Your task to perform on an android device: Turn off the flashlight Image 0: 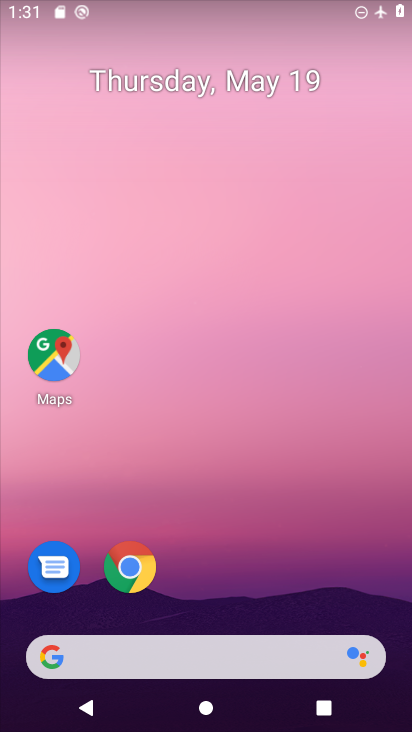
Step 0: drag from (225, 534) to (245, 38)
Your task to perform on an android device: Turn off the flashlight Image 1: 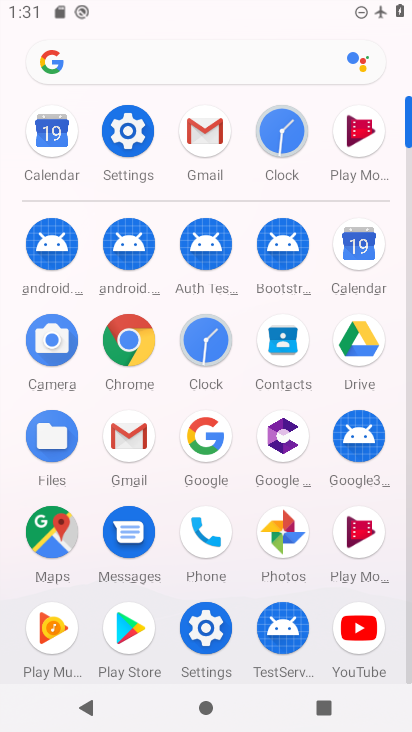
Step 1: click (128, 134)
Your task to perform on an android device: Turn off the flashlight Image 2: 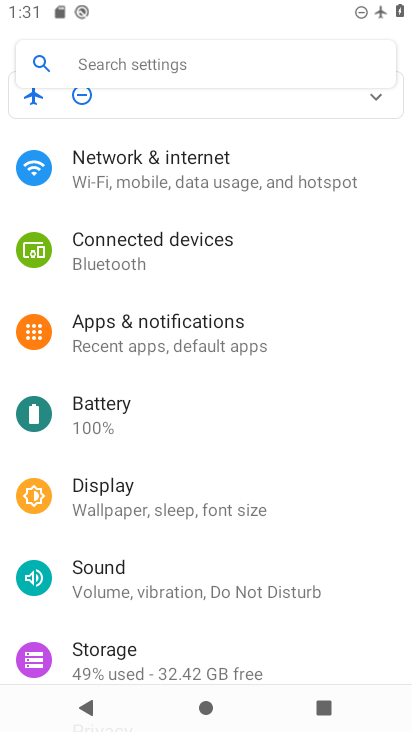
Step 2: click (215, 63)
Your task to perform on an android device: Turn off the flashlight Image 3: 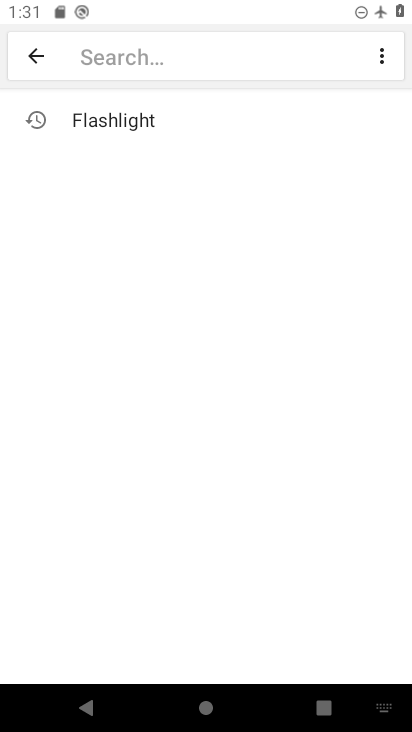
Step 3: click (137, 115)
Your task to perform on an android device: Turn off the flashlight Image 4: 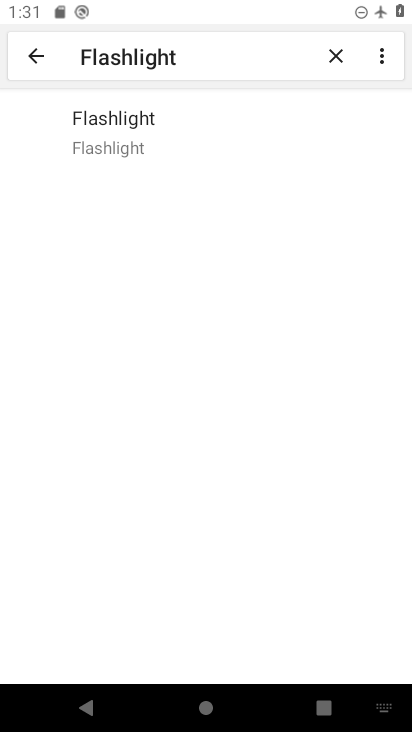
Step 4: click (129, 122)
Your task to perform on an android device: Turn off the flashlight Image 5: 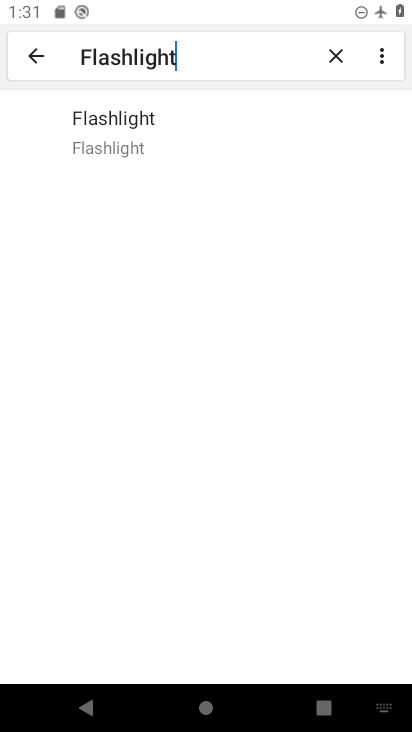
Step 5: task complete